Your task to perform on an android device: Go to wifi settings Image 0: 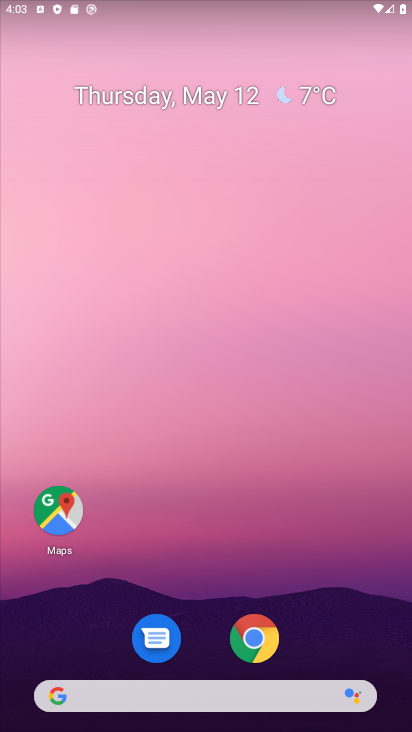
Step 0: drag from (328, 620) to (238, 75)
Your task to perform on an android device: Go to wifi settings Image 1: 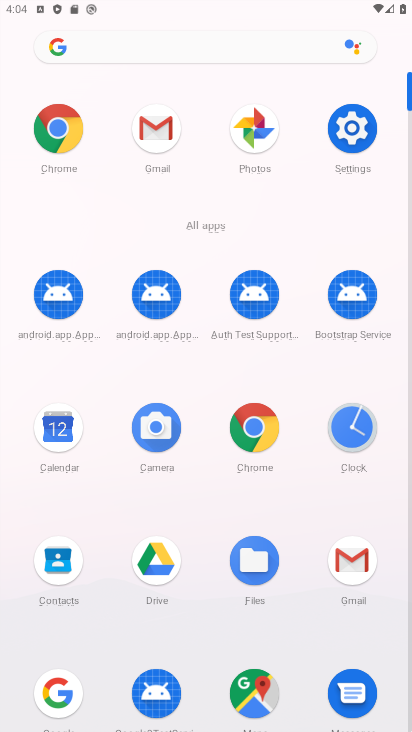
Step 1: click (343, 133)
Your task to perform on an android device: Go to wifi settings Image 2: 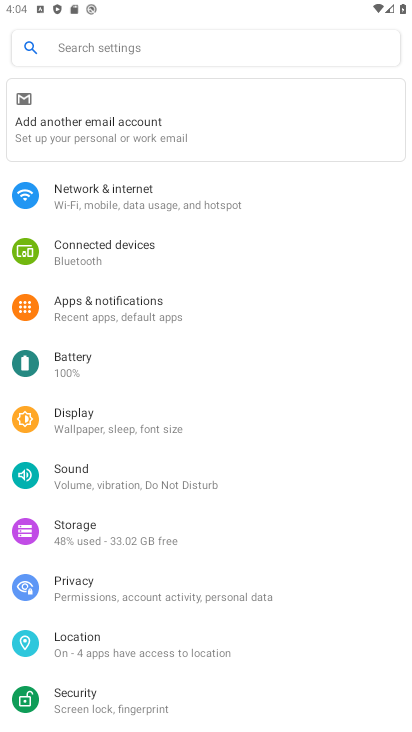
Step 2: click (185, 205)
Your task to perform on an android device: Go to wifi settings Image 3: 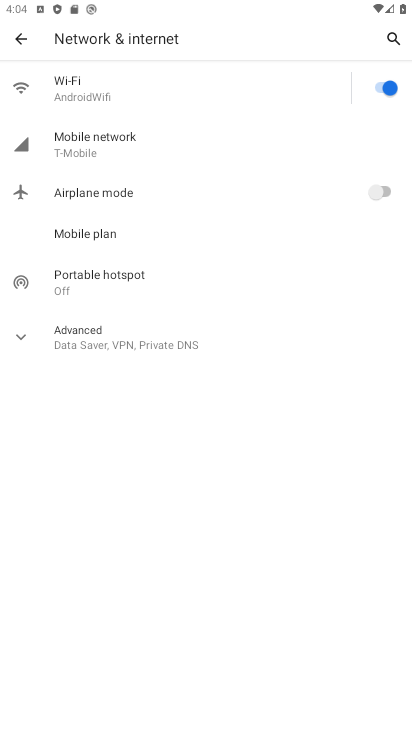
Step 3: click (189, 98)
Your task to perform on an android device: Go to wifi settings Image 4: 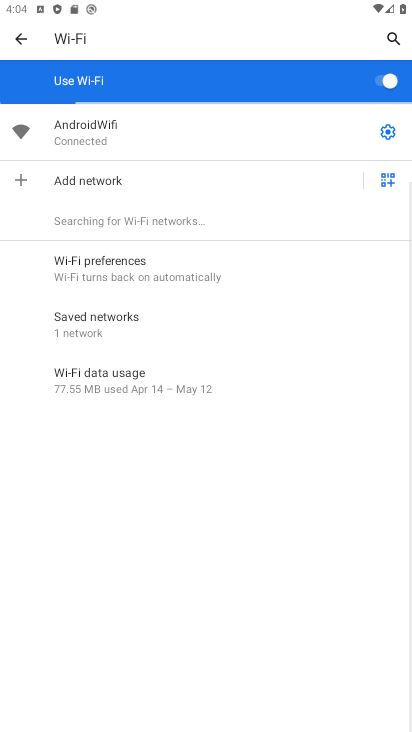
Step 4: task complete